Your task to perform on an android device: Open Reddit.com Image 0: 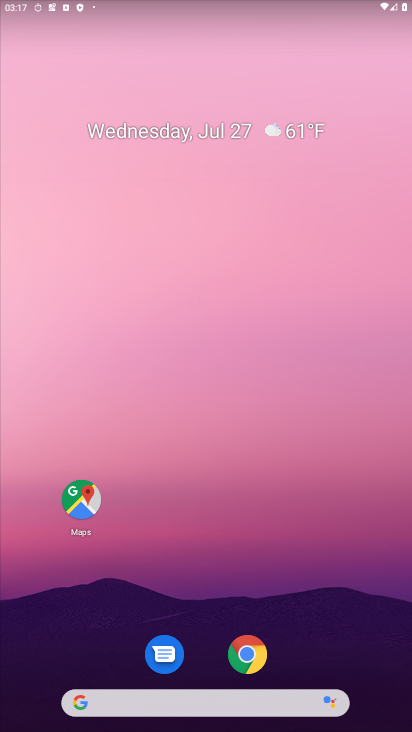
Step 0: drag from (255, 693) to (268, 159)
Your task to perform on an android device: Open Reddit.com Image 1: 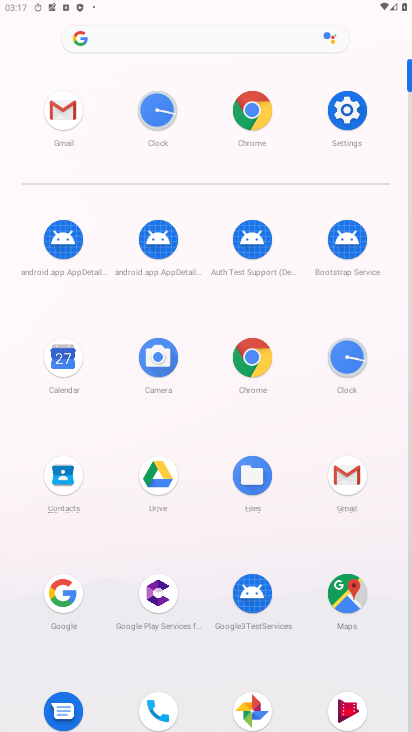
Step 1: click (238, 365)
Your task to perform on an android device: Open Reddit.com Image 2: 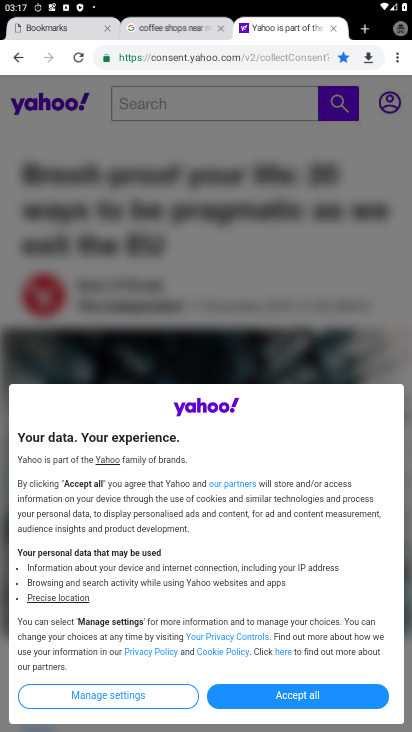
Step 2: click (168, 57)
Your task to perform on an android device: Open Reddit.com Image 3: 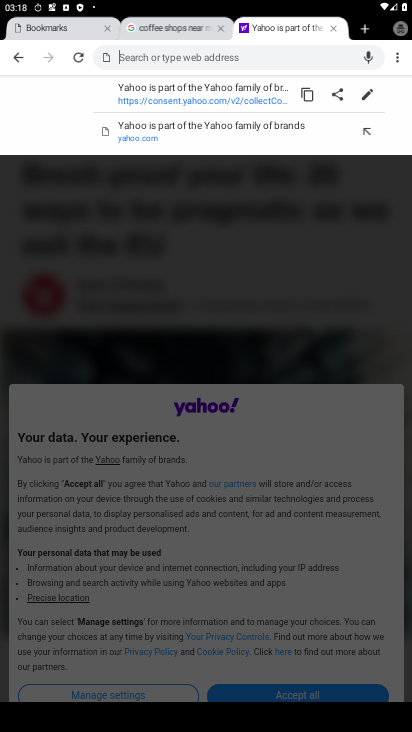
Step 3: type "reddit.com"
Your task to perform on an android device: Open Reddit.com Image 4: 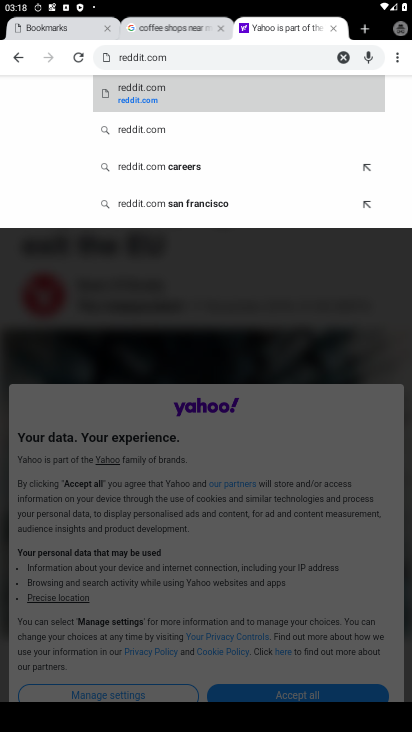
Step 4: click (166, 99)
Your task to perform on an android device: Open Reddit.com Image 5: 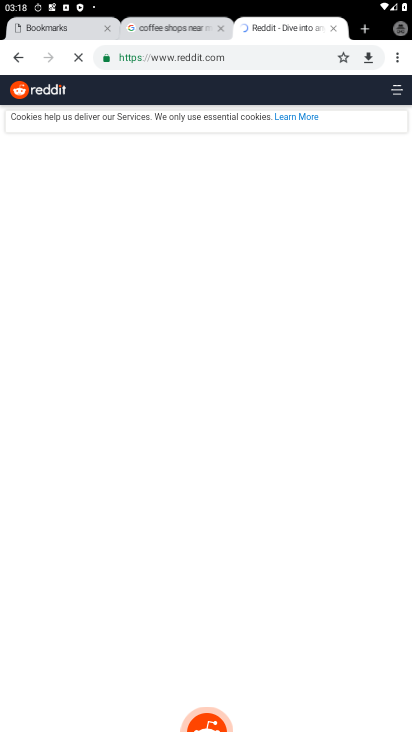
Step 5: task complete